Your task to perform on an android device: toggle improve location accuracy Image 0: 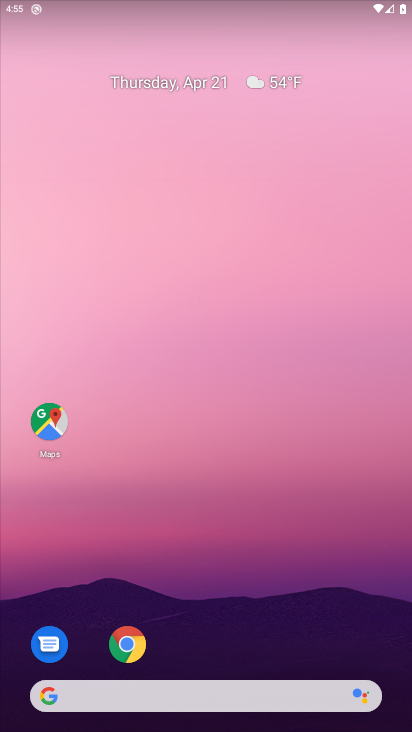
Step 0: click (214, 187)
Your task to perform on an android device: toggle improve location accuracy Image 1: 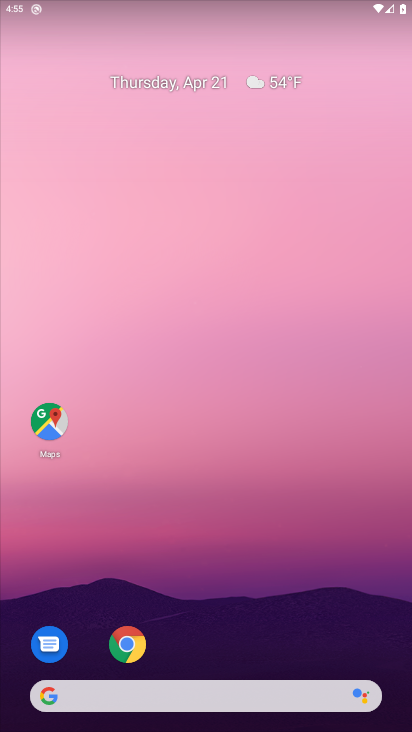
Step 1: drag from (215, 675) to (272, 247)
Your task to perform on an android device: toggle improve location accuracy Image 2: 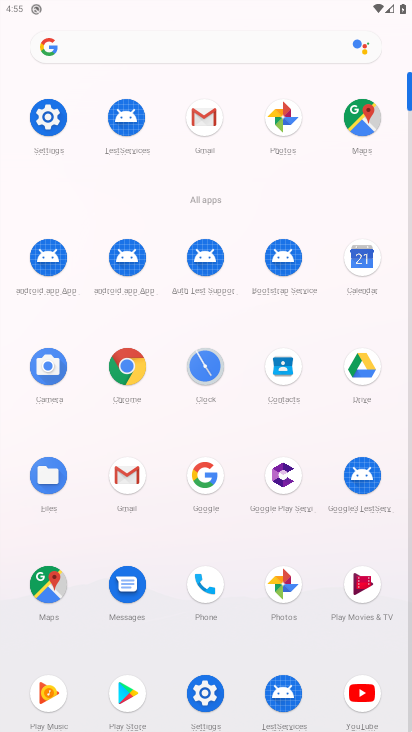
Step 2: click (49, 120)
Your task to perform on an android device: toggle improve location accuracy Image 3: 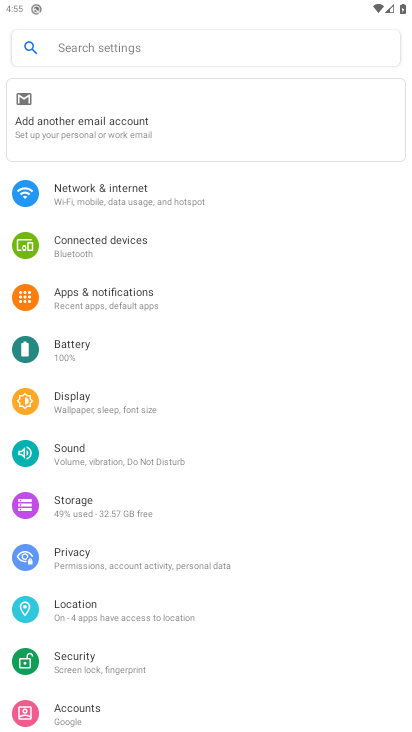
Step 3: click (102, 613)
Your task to perform on an android device: toggle improve location accuracy Image 4: 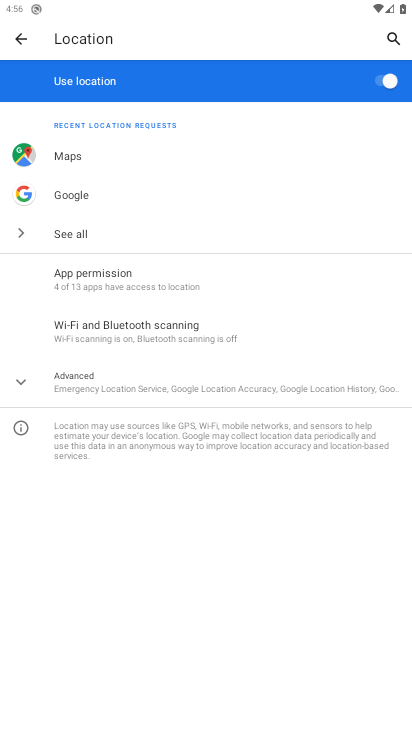
Step 4: click (101, 383)
Your task to perform on an android device: toggle improve location accuracy Image 5: 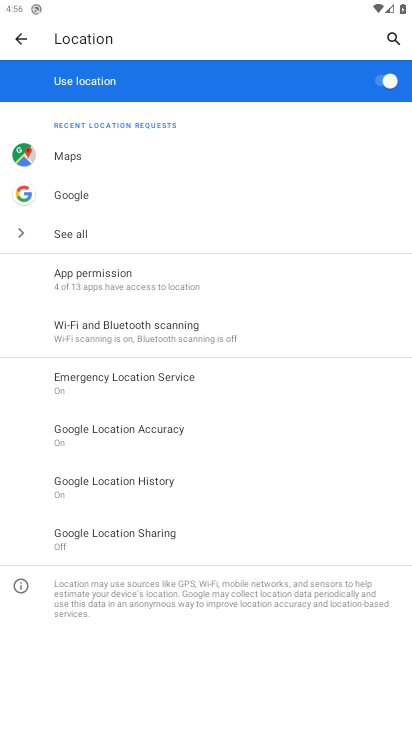
Step 5: click (146, 427)
Your task to perform on an android device: toggle improve location accuracy Image 6: 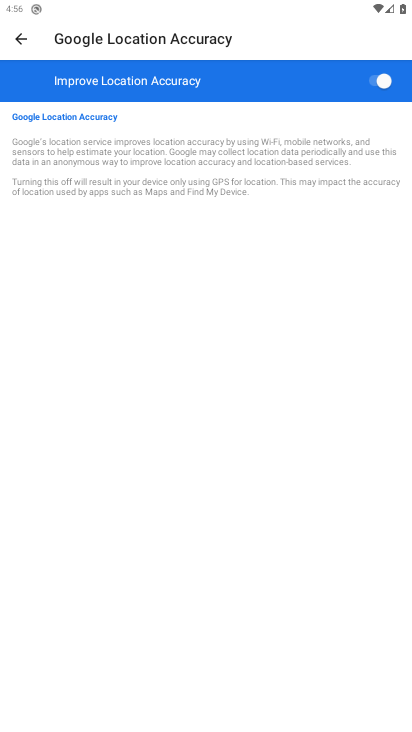
Step 6: click (375, 80)
Your task to perform on an android device: toggle improve location accuracy Image 7: 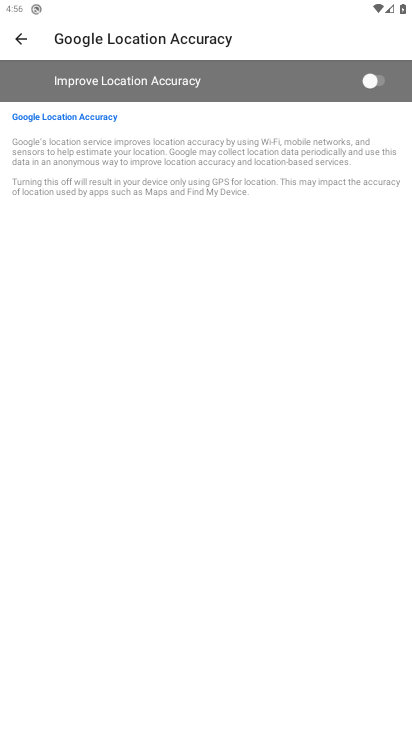
Step 7: task complete